Your task to perform on an android device: turn on translation in the chrome app Image 0: 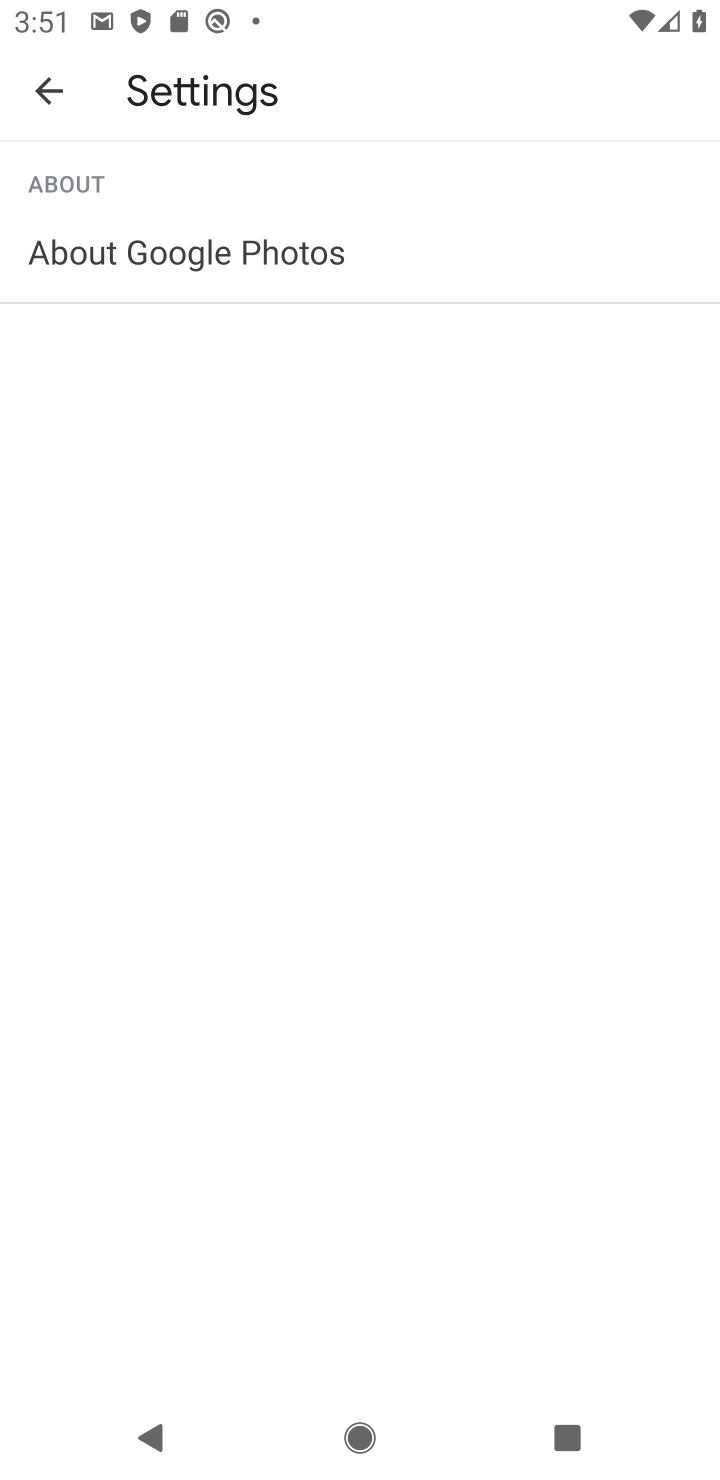
Step 0: press home button
Your task to perform on an android device: turn on translation in the chrome app Image 1: 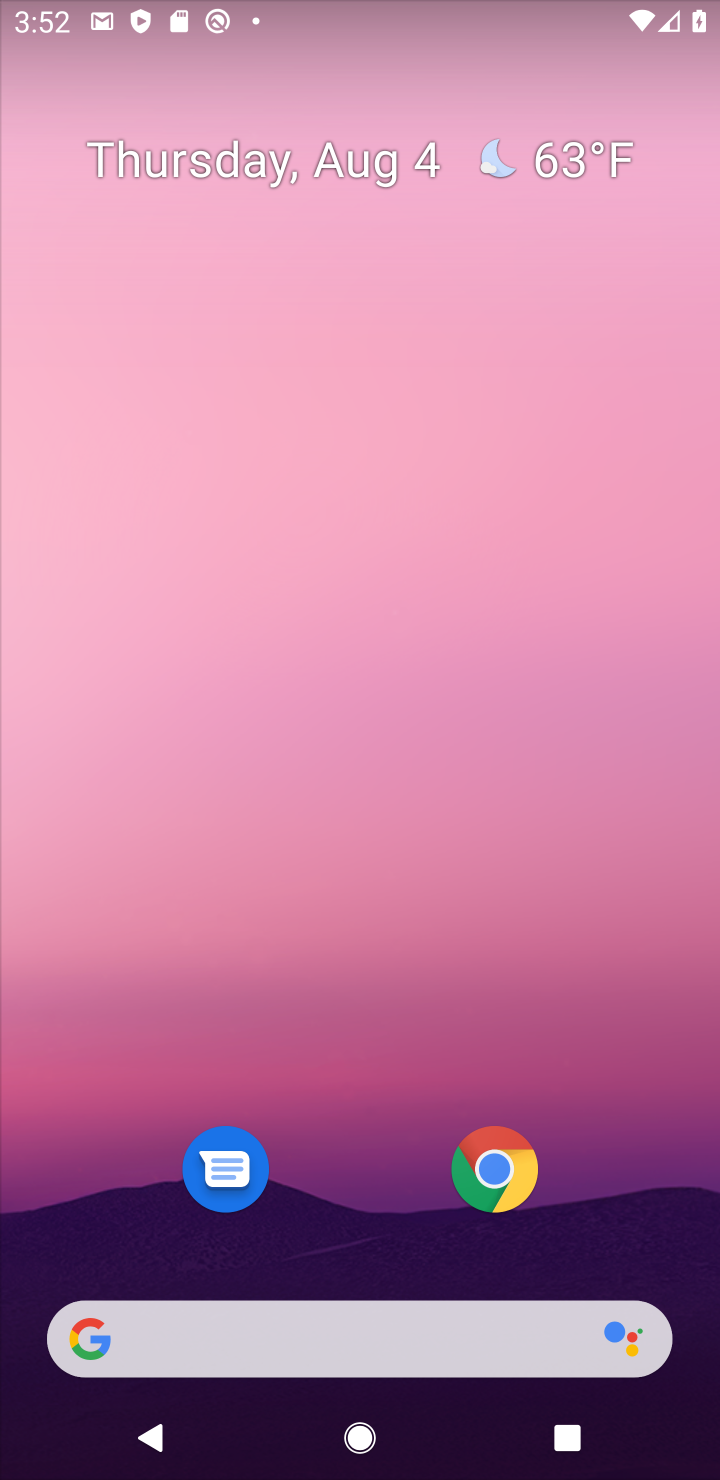
Step 1: drag from (308, 1035) to (395, 0)
Your task to perform on an android device: turn on translation in the chrome app Image 2: 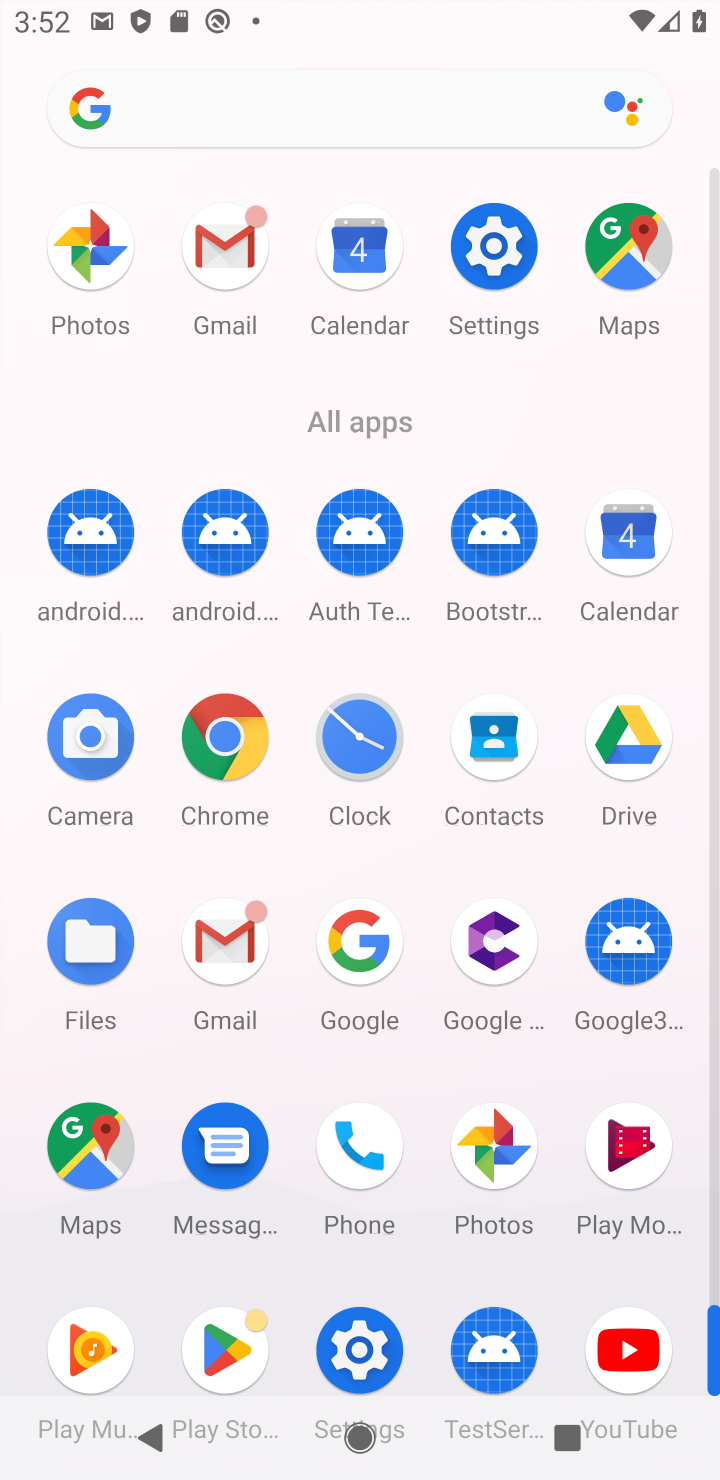
Step 2: click (226, 767)
Your task to perform on an android device: turn on translation in the chrome app Image 3: 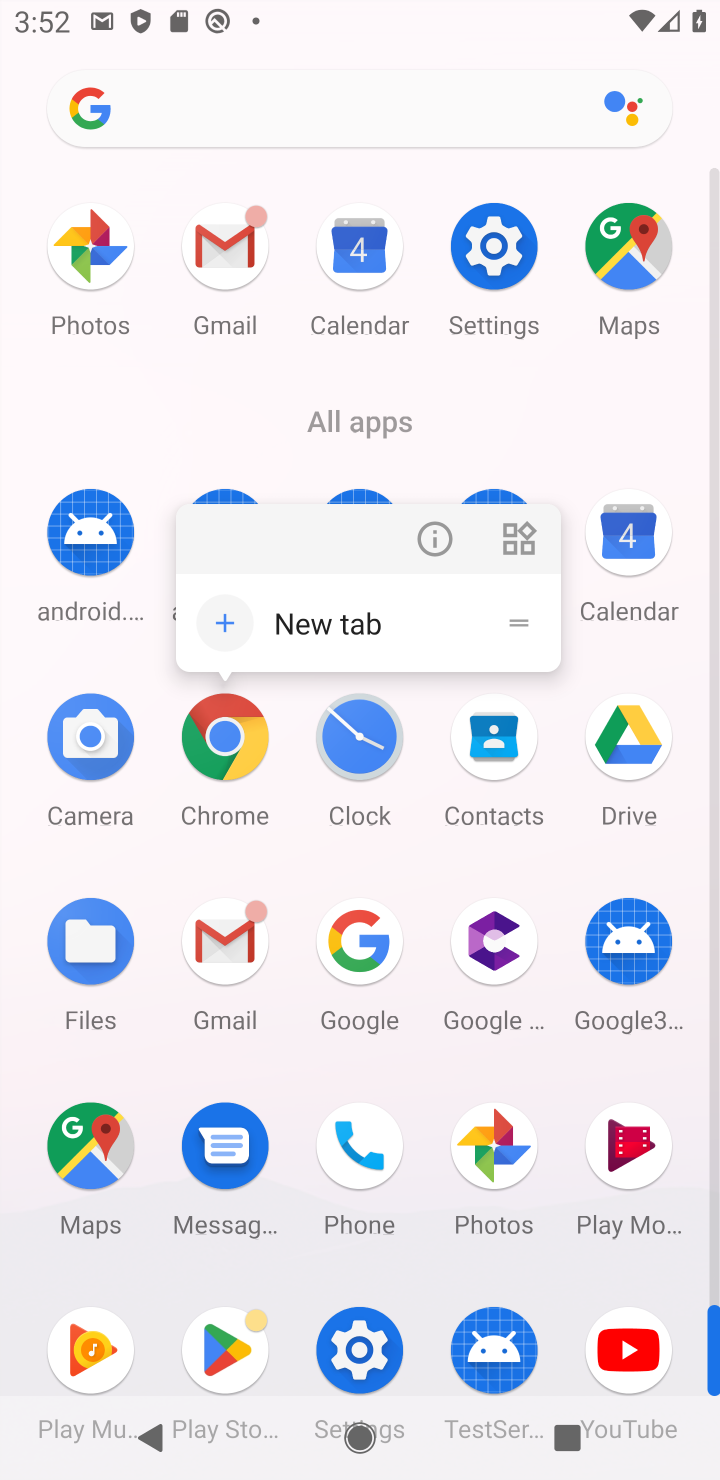
Step 3: click (243, 799)
Your task to perform on an android device: turn on translation in the chrome app Image 4: 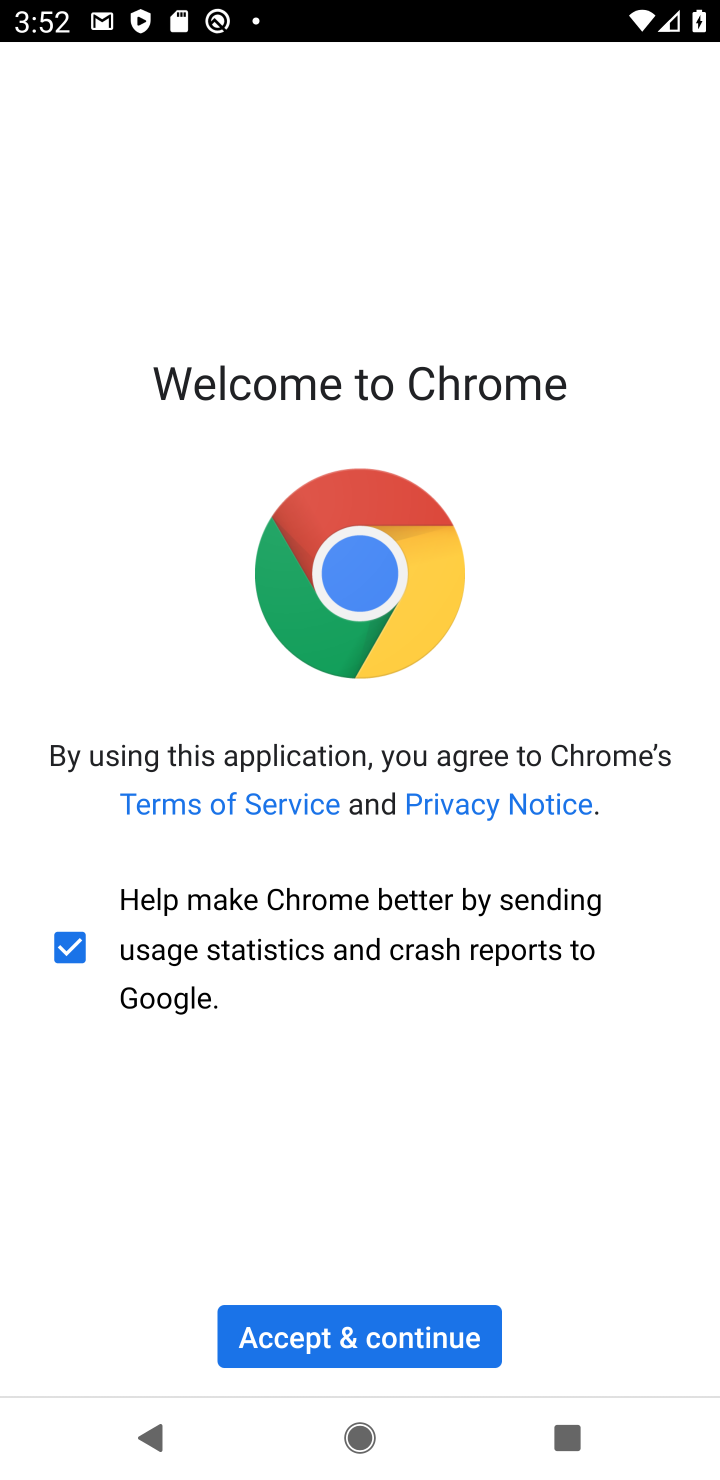
Step 4: click (243, 799)
Your task to perform on an android device: turn on translation in the chrome app Image 5: 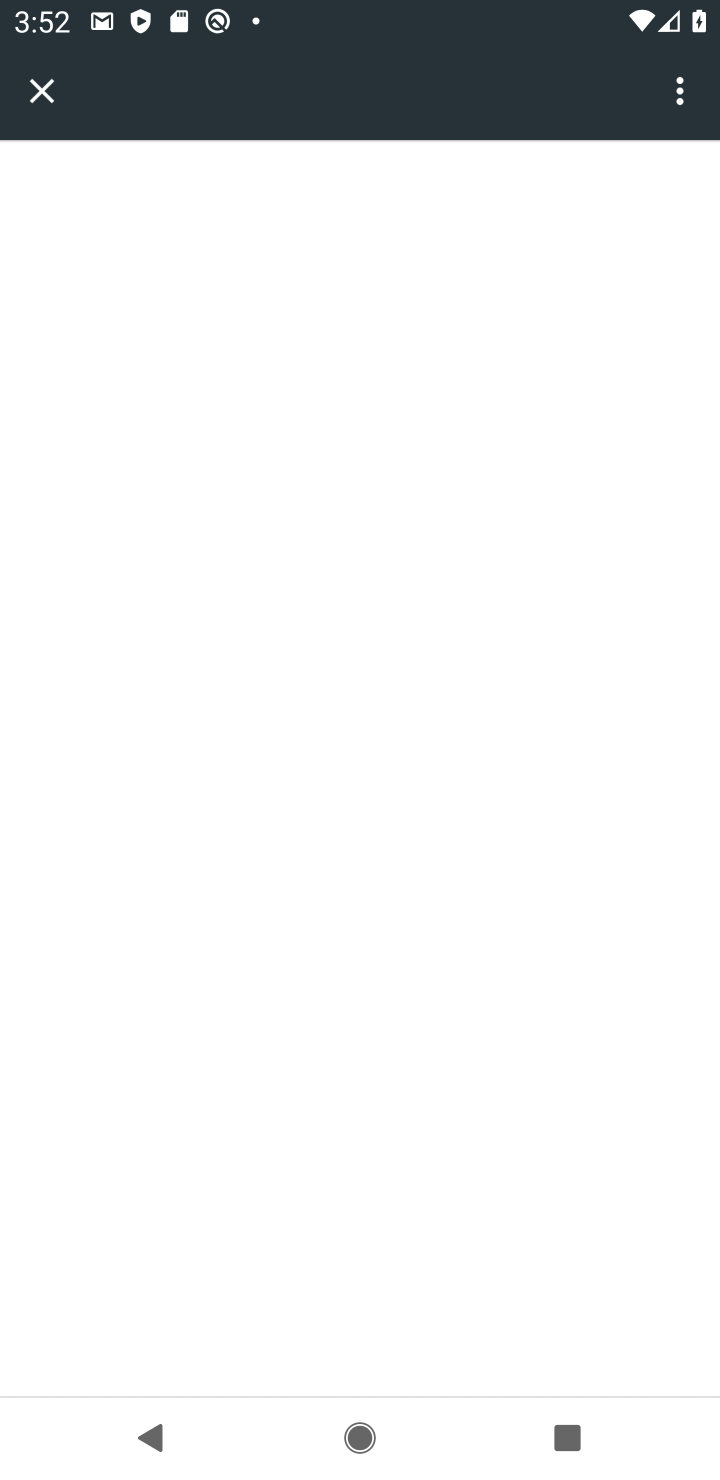
Step 5: click (411, 1338)
Your task to perform on an android device: turn on translation in the chrome app Image 6: 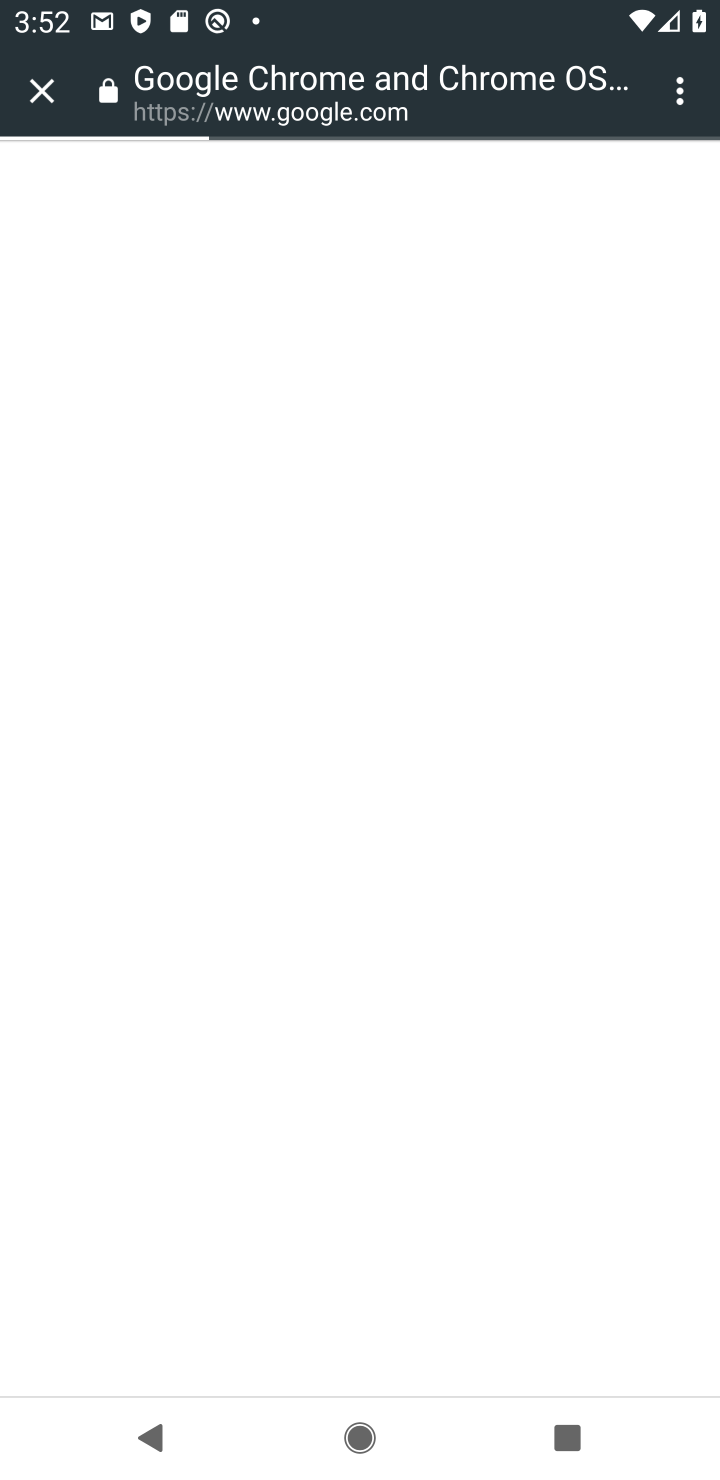
Step 6: click (54, 82)
Your task to perform on an android device: turn on translation in the chrome app Image 7: 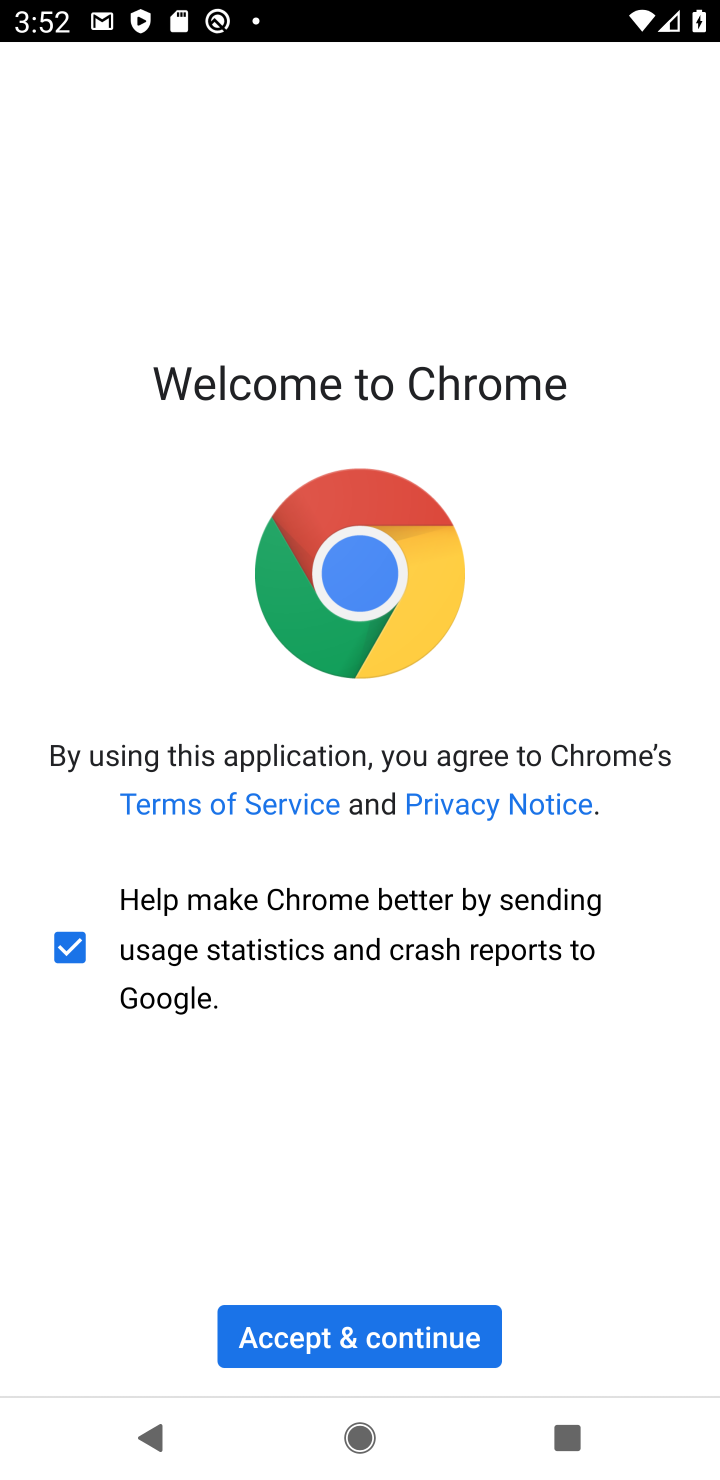
Step 7: click (363, 1346)
Your task to perform on an android device: turn on translation in the chrome app Image 8: 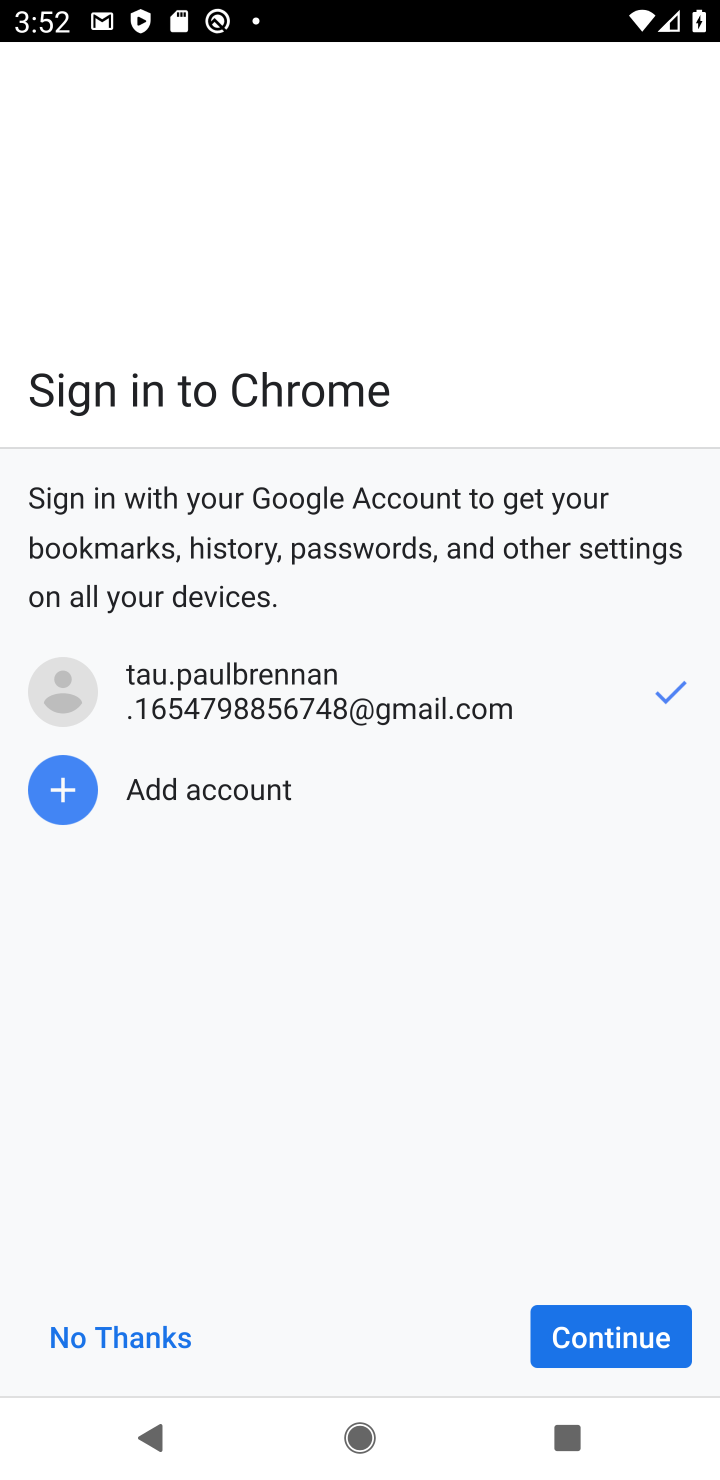
Step 8: click (627, 1373)
Your task to perform on an android device: turn on translation in the chrome app Image 9: 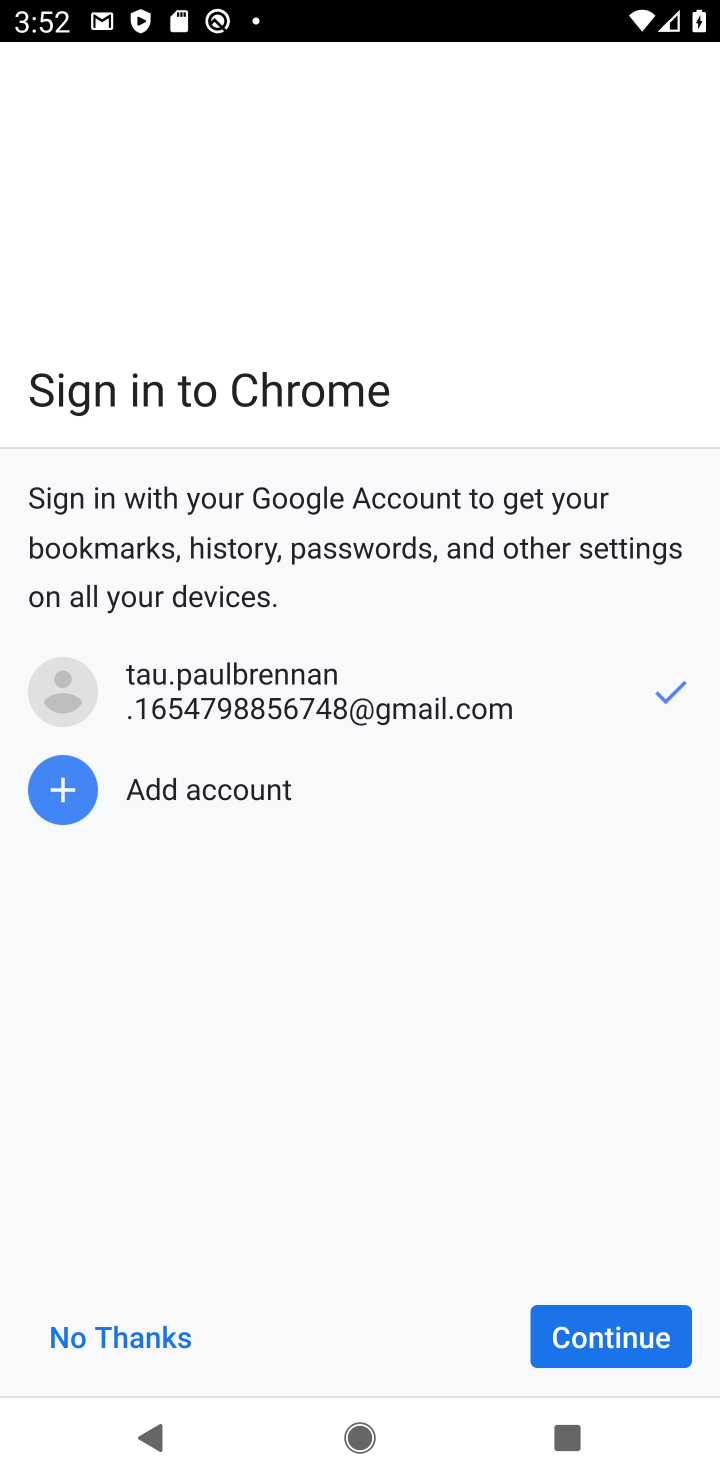
Step 9: click (630, 1340)
Your task to perform on an android device: turn on translation in the chrome app Image 10: 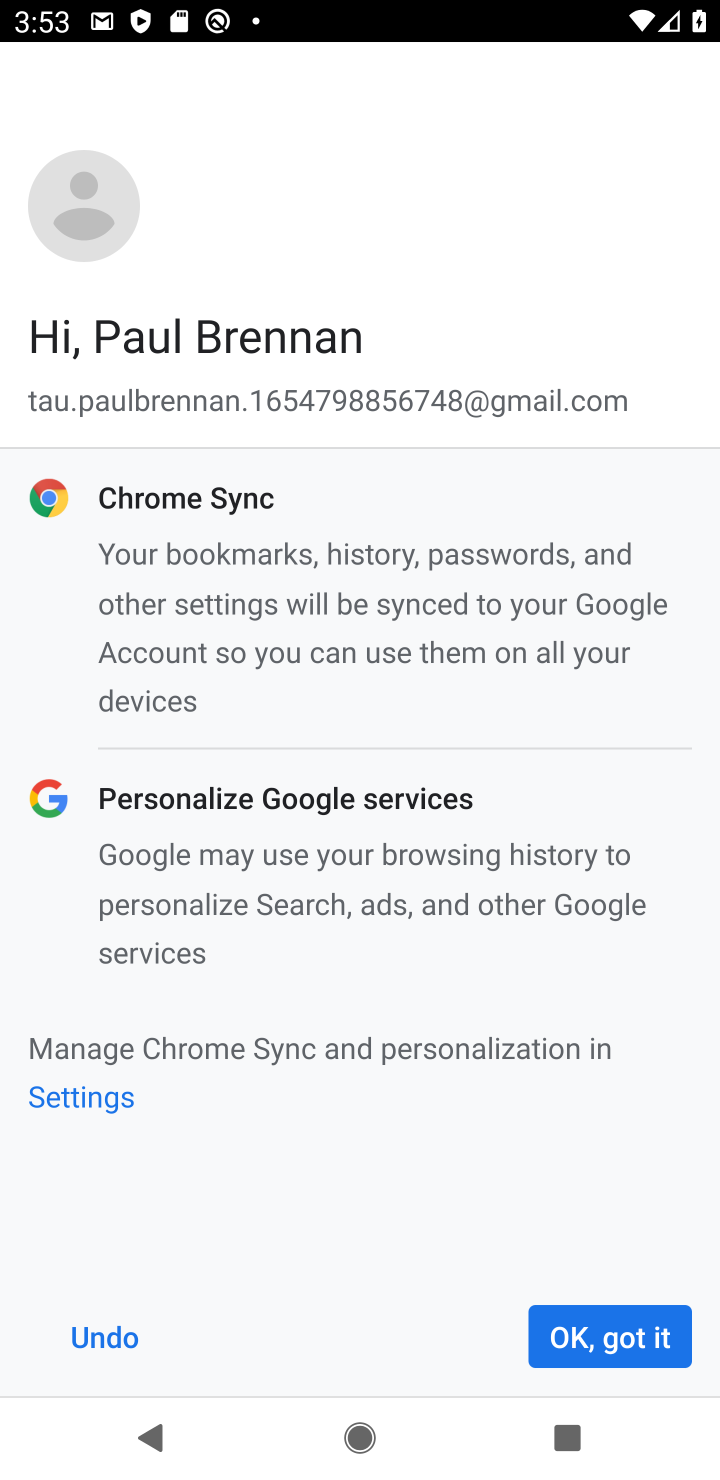
Step 10: click (579, 1340)
Your task to perform on an android device: turn on translation in the chrome app Image 11: 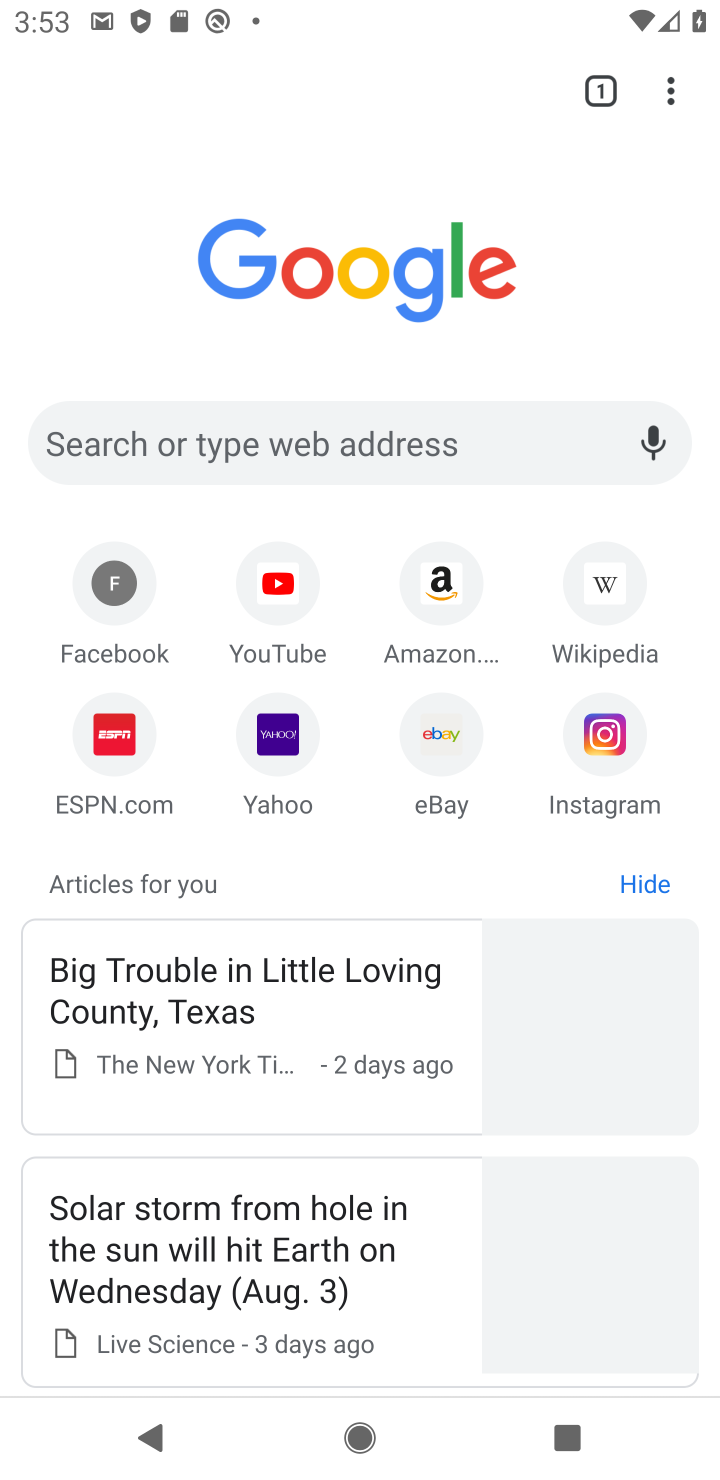
Step 11: click (662, 84)
Your task to perform on an android device: turn on translation in the chrome app Image 12: 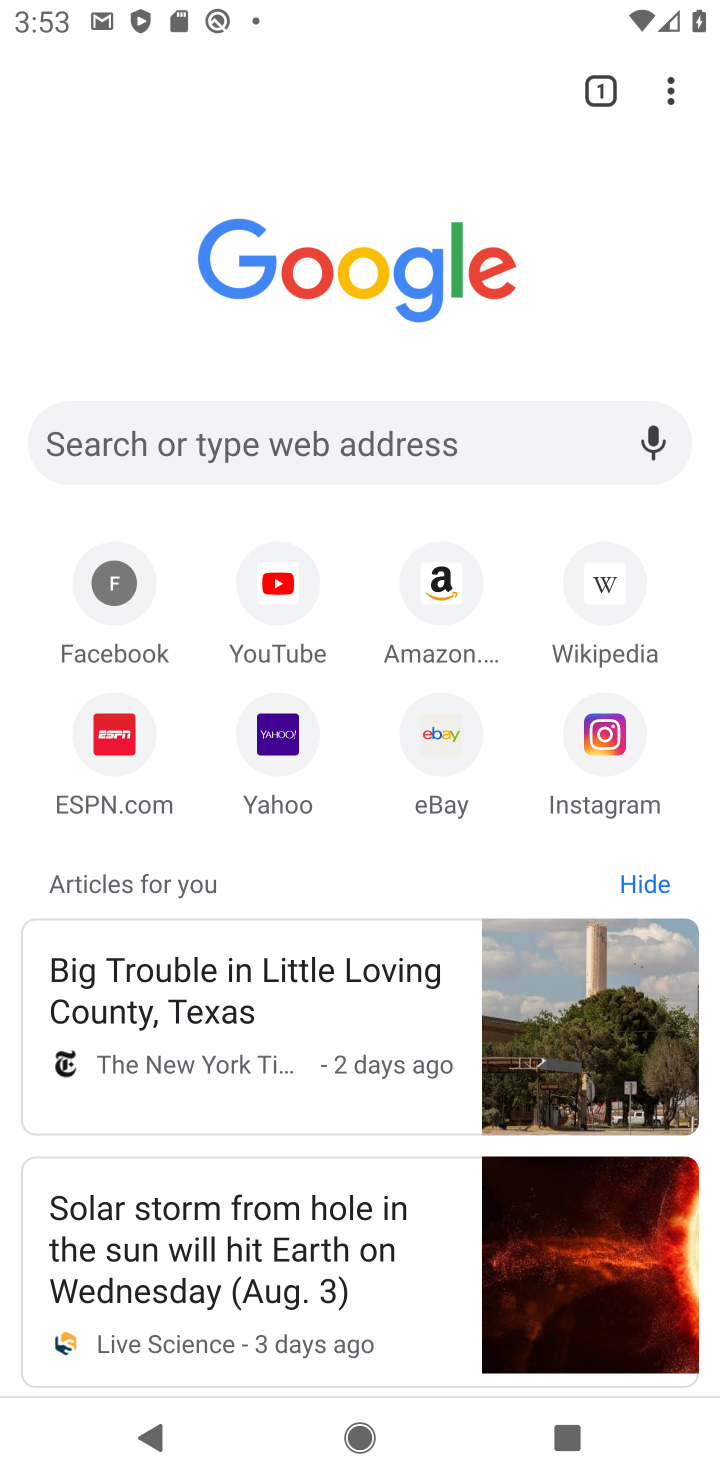
Step 12: click (662, 86)
Your task to perform on an android device: turn on translation in the chrome app Image 13: 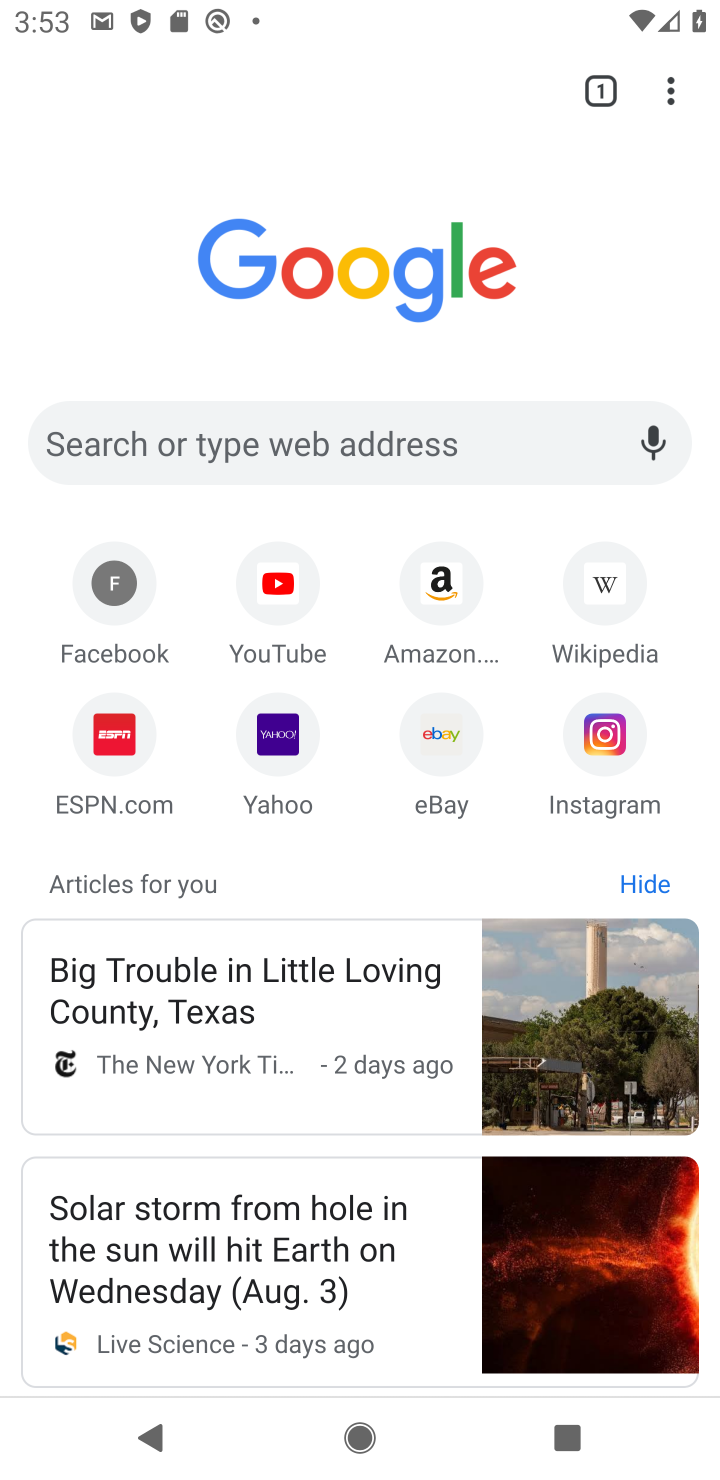
Step 13: click (666, 100)
Your task to perform on an android device: turn on translation in the chrome app Image 14: 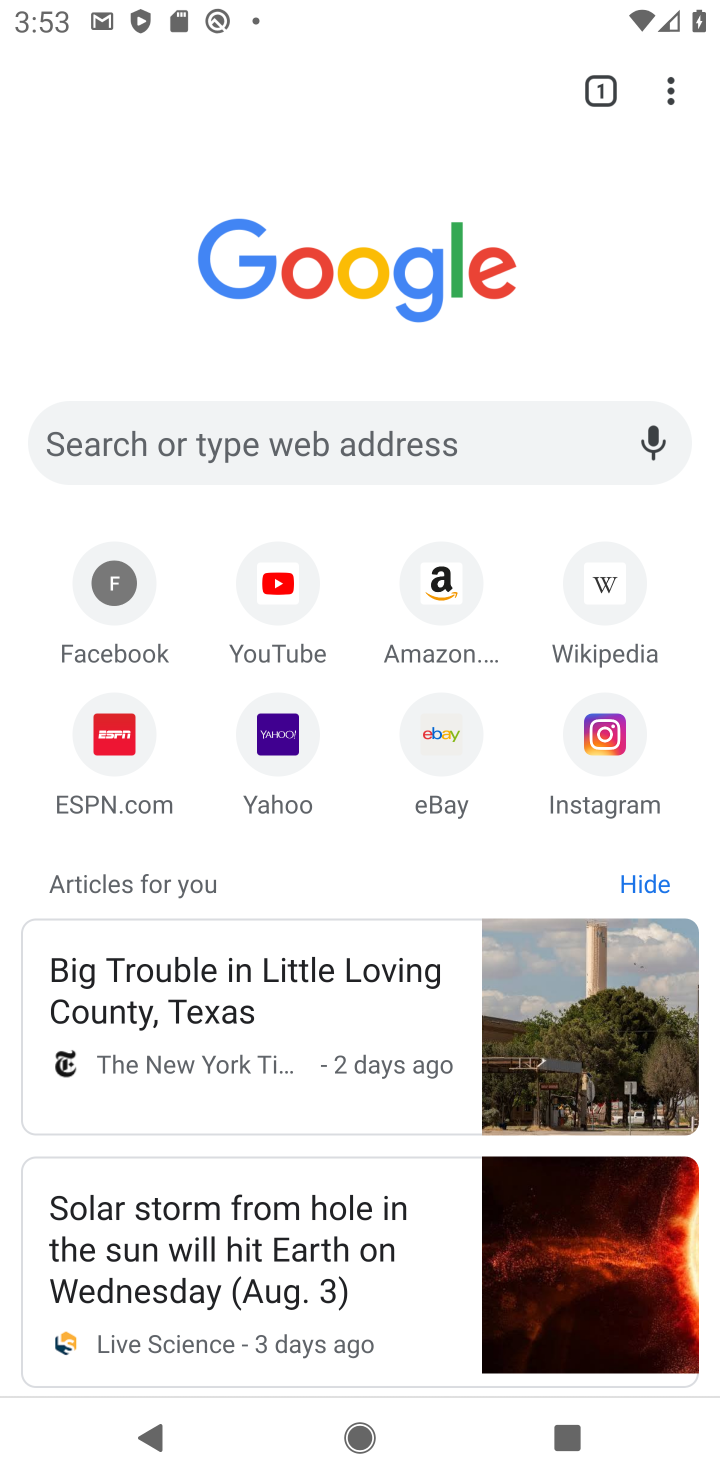
Step 14: click (665, 88)
Your task to perform on an android device: turn on translation in the chrome app Image 15: 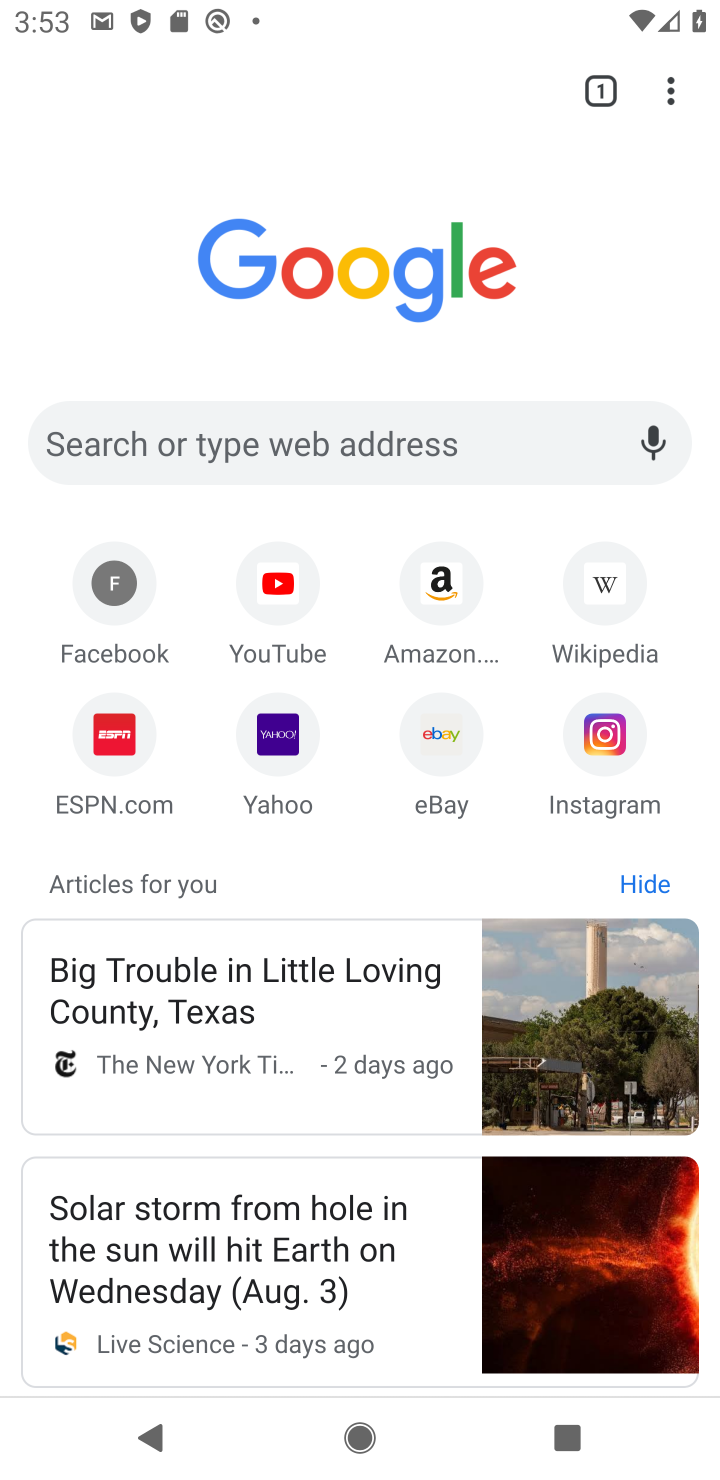
Step 15: click (664, 86)
Your task to perform on an android device: turn on translation in the chrome app Image 16: 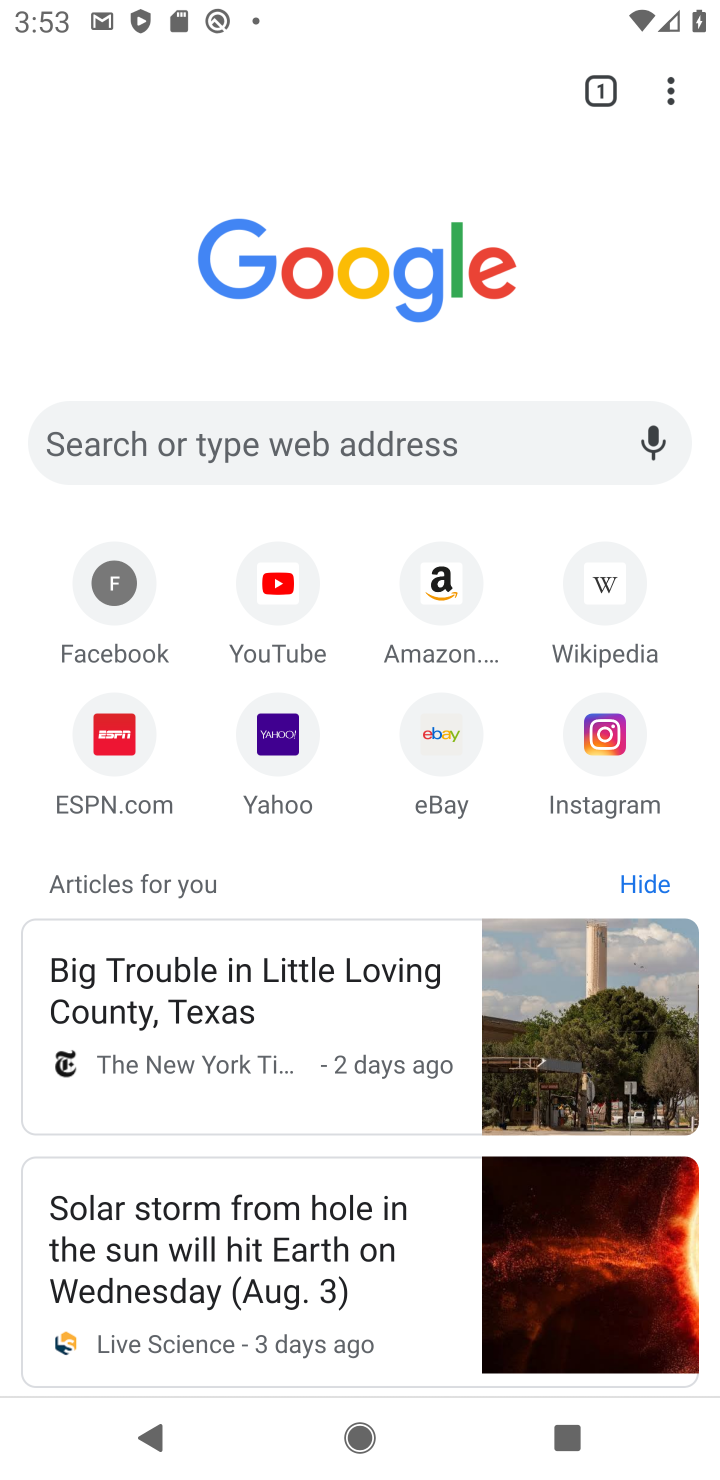
Step 16: click (664, 92)
Your task to perform on an android device: turn on translation in the chrome app Image 17: 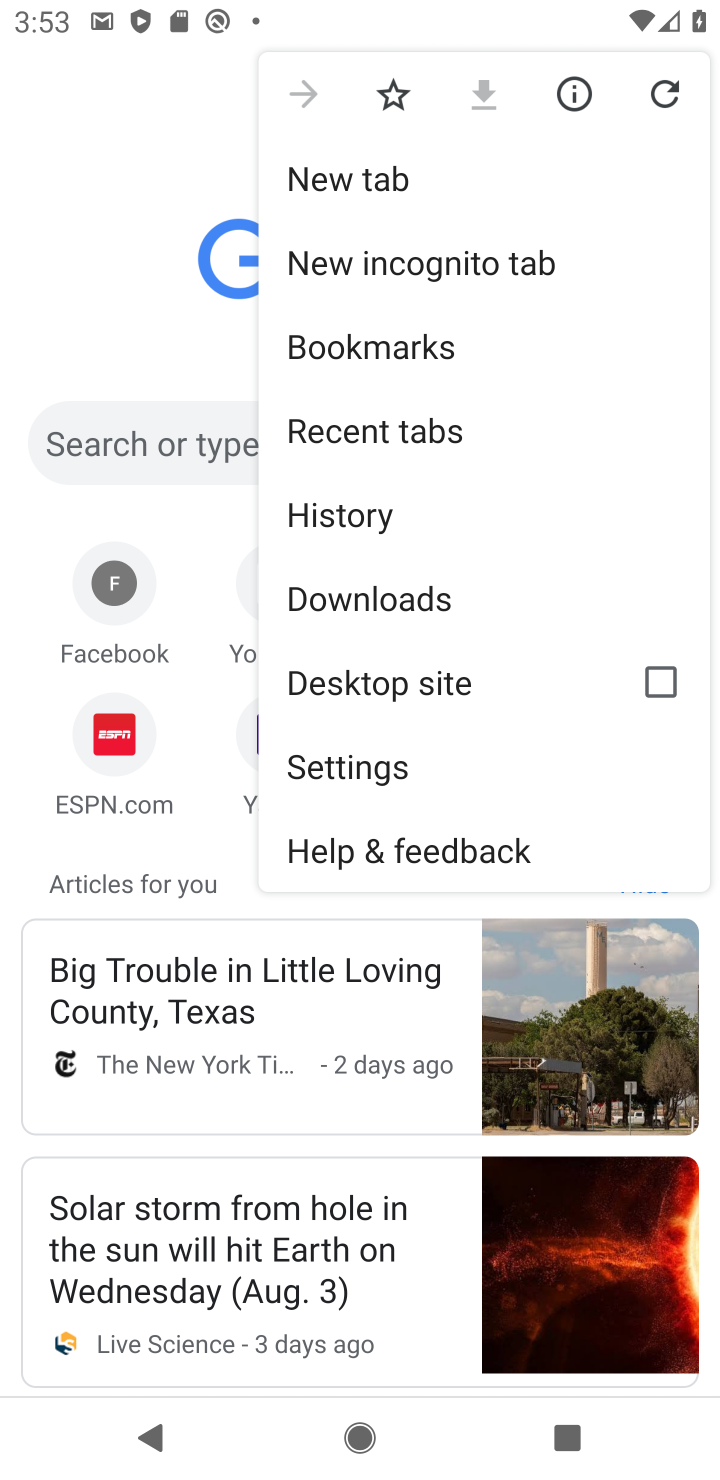
Step 17: click (399, 771)
Your task to perform on an android device: turn on translation in the chrome app Image 18: 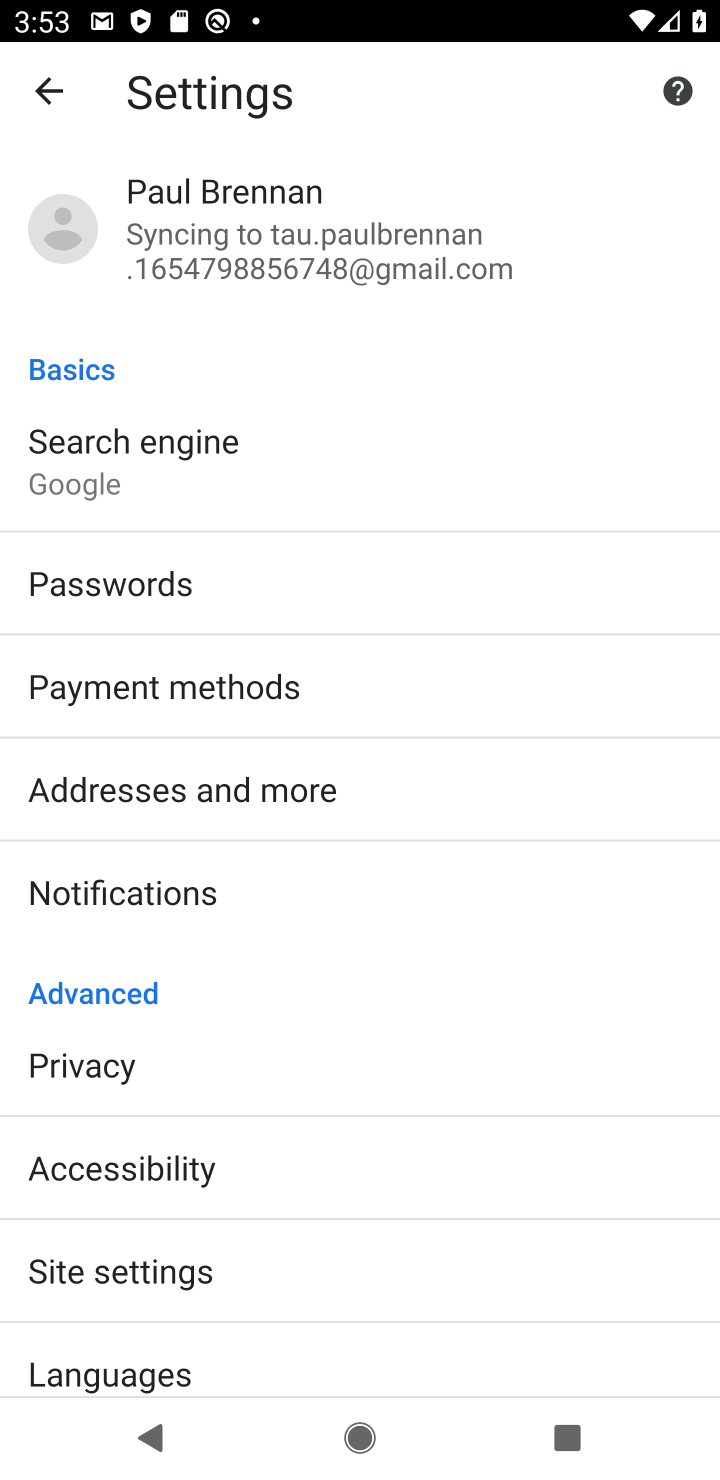
Step 18: drag from (216, 1192) to (262, 471)
Your task to perform on an android device: turn on translation in the chrome app Image 19: 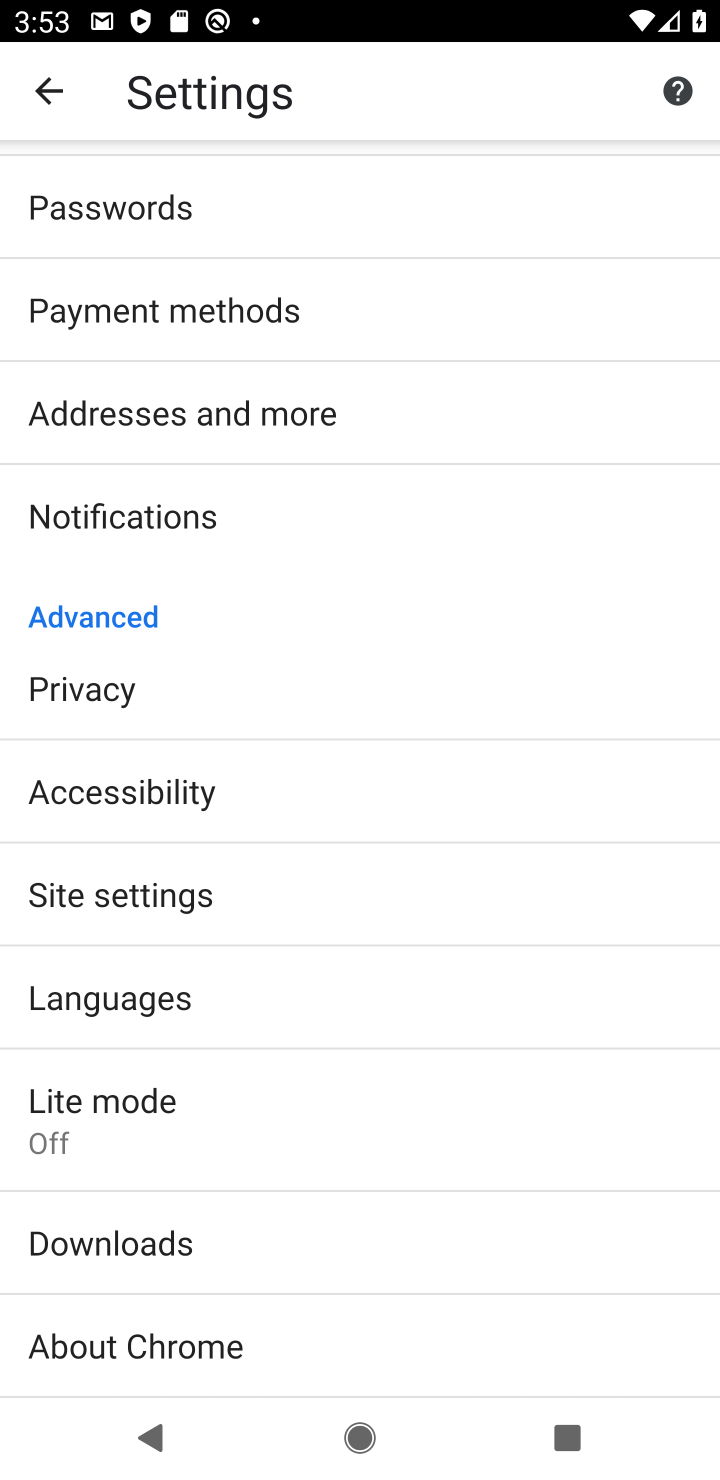
Step 19: click (165, 1002)
Your task to perform on an android device: turn on translation in the chrome app Image 20: 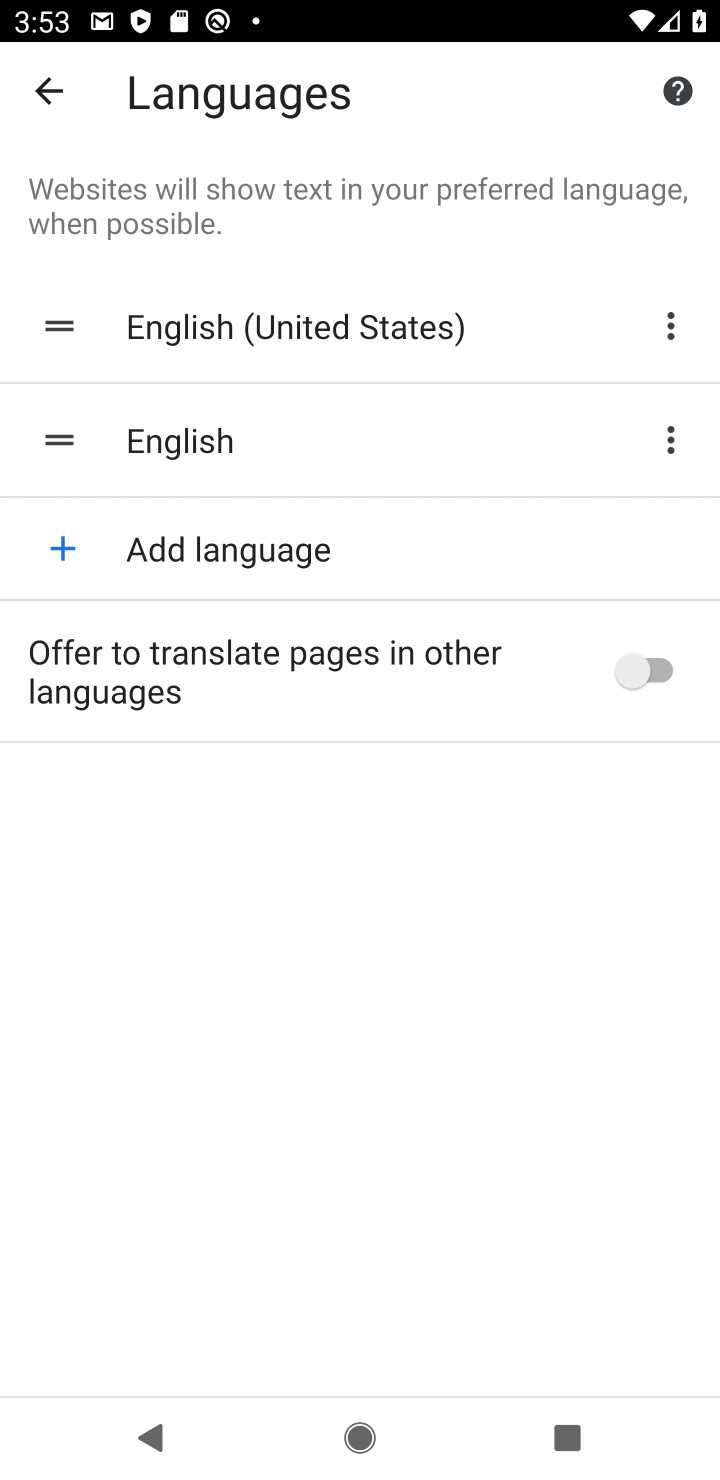
Step 20: click (659, 673)
Your task to perform on an android device: turn on translation in the chrome app Image 21: 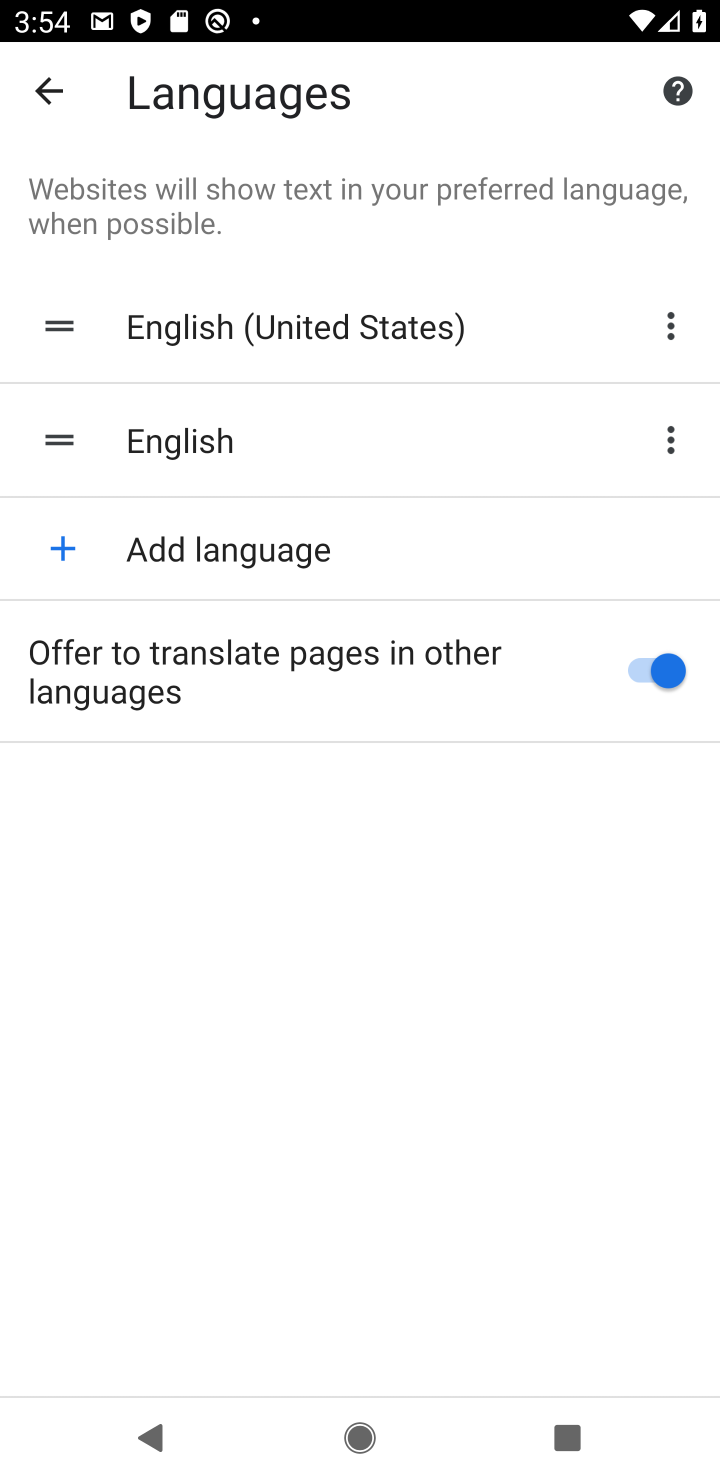
Step 21: task complete